Your task to perform on an android device: Open Google Maps Image 0: 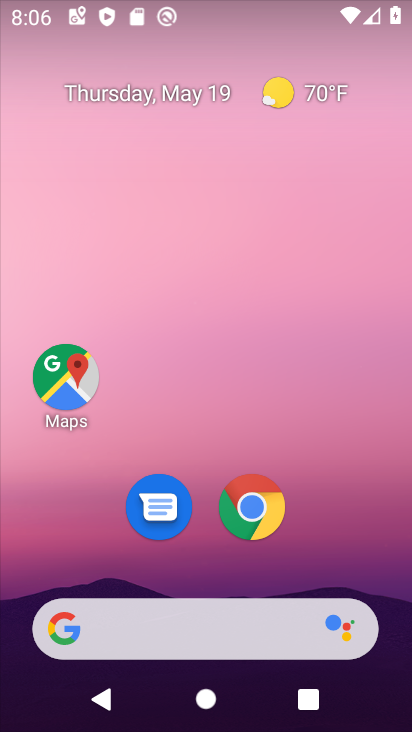
Step 0: click (48, 357)
Your task to perform on an android device: Open Google Maps Image 1: 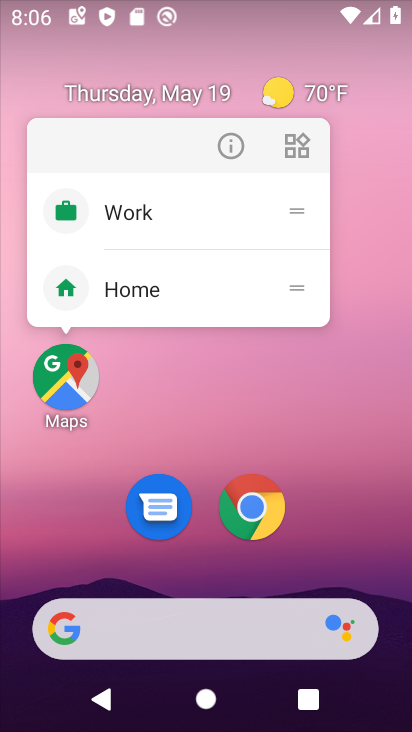
Step 1: click (48, 357)
Your task to perform on an android device: Open Google Maps Image 2: 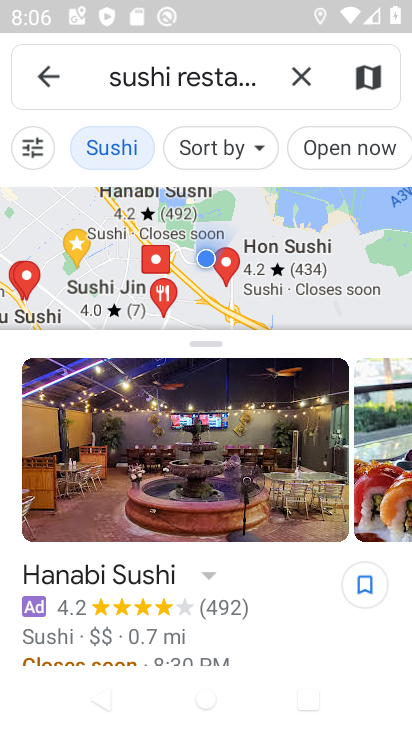
Step 2: task complete